Your task to perform on an android device: Search for vegetarian restaurants on Maps Image 0: 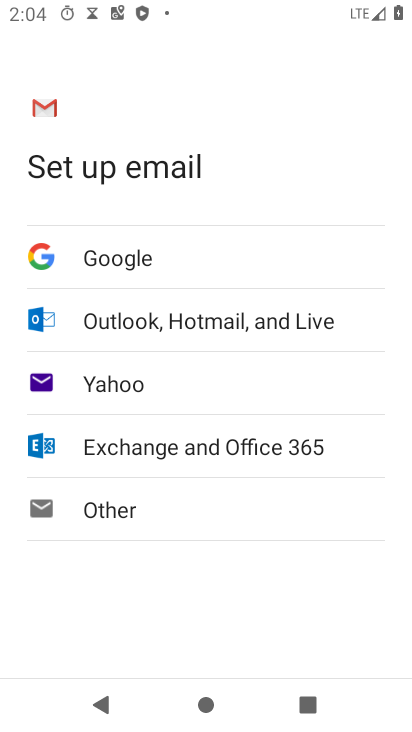
Step 0: press home button
Your task to perform on an android device: Search for vegetarian restaurants on Maps Image 1: 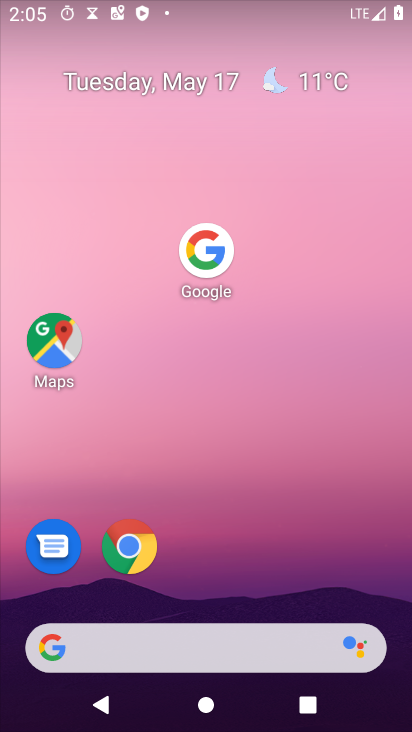
Step 1: click (48, 340)
Your task to perform on an android device: Search for vegetarian restaurants on Maps Image 2: 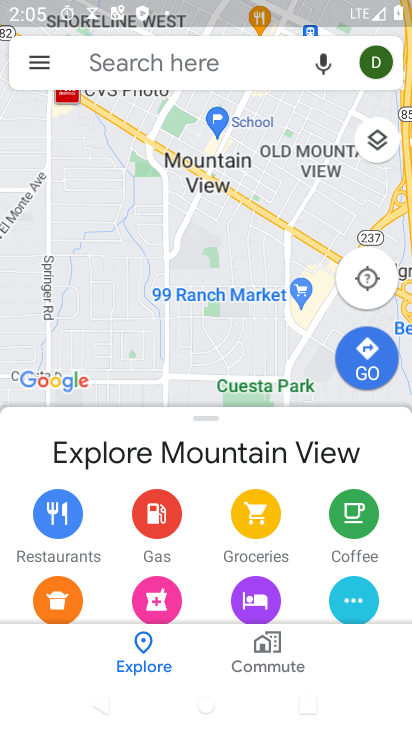
Step 2: click (185, 64)
Your task to perform on an android device: Search for vegetarian restaurants on Maps Image 3: 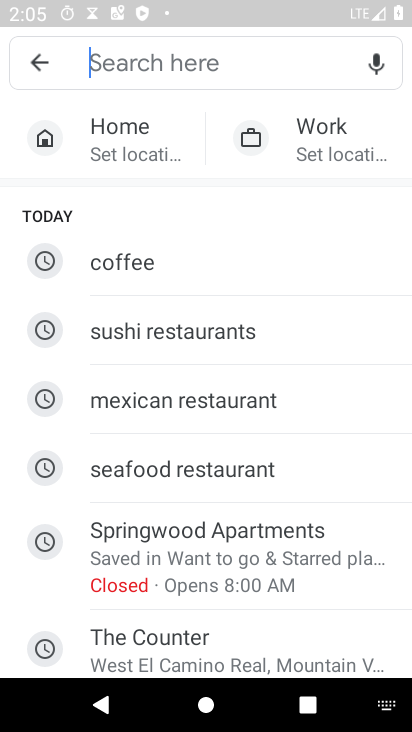
Step 3: drag from (212, 545) to (295, 196)
Your task to perform on an android device: Search for vegetarian restaurants on Maps Image 4: 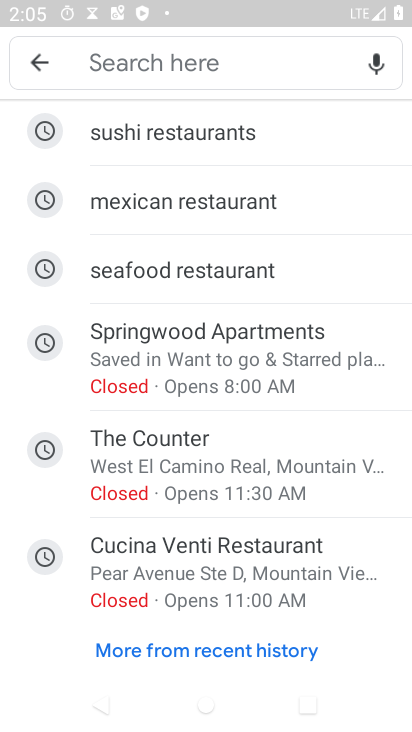
Step 4: drag from (292, 189) to (263, 539)
Your task to perform on an android device: Search for vegetarian restaurants on Maps Image 5: 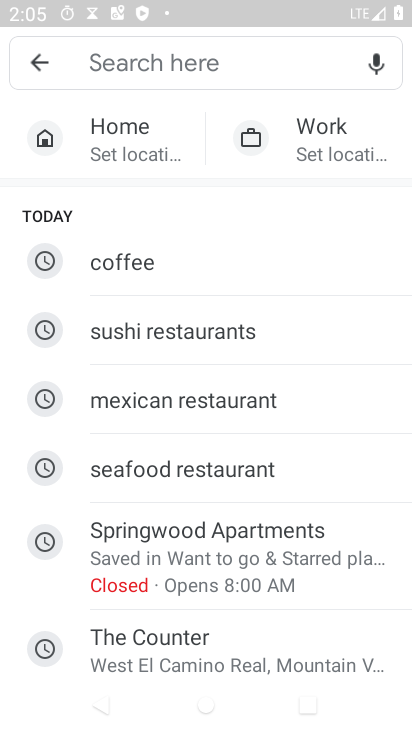
Step 5: click (176, 58)
Your task to perform on an android device: Search for vegetarian restaurants on Maps Image 6: 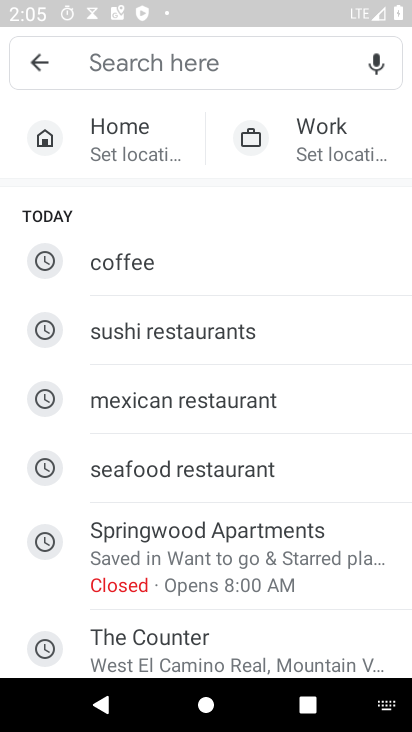
Step 6: type "vegetarian"
Your task to perform on an android device: Search for vegetarian restaurants on Maps Image 7: 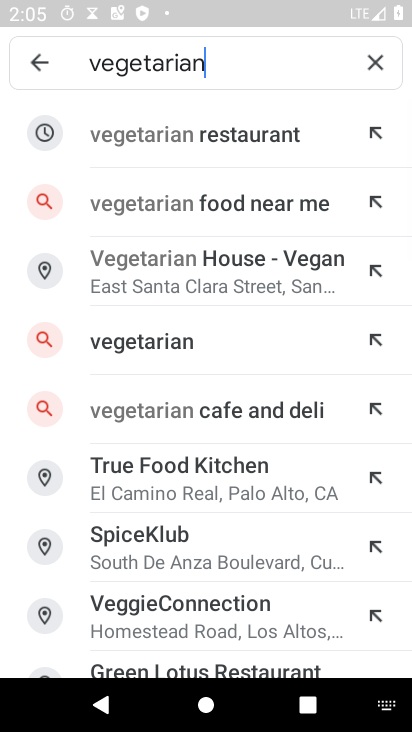
Step 7: click (216, 144)
Your task to perform on an android device: Search for vegetarian restaurants on Maps Image 8: 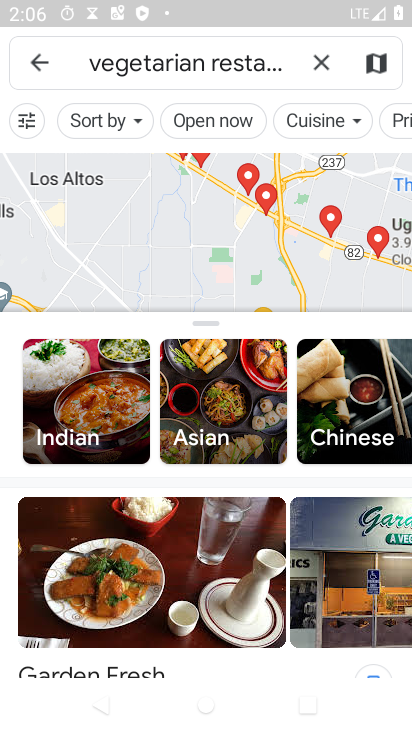
Step 8: task complete